Your task to perform on an android device: toggle wifi Image 0: 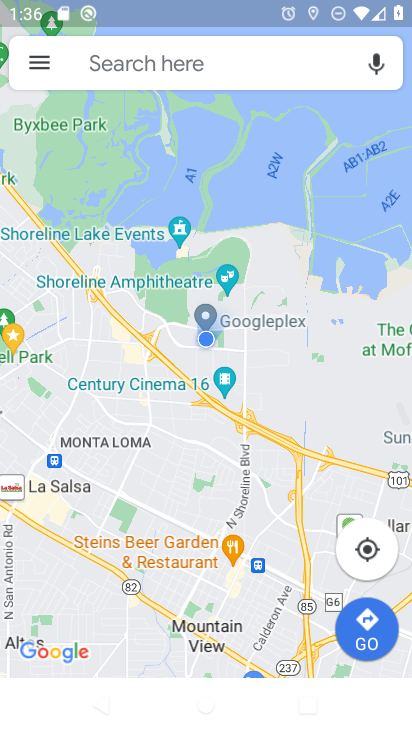
Step 0: press home button
Your task to perform on an android device: toggle wifi Image 1: 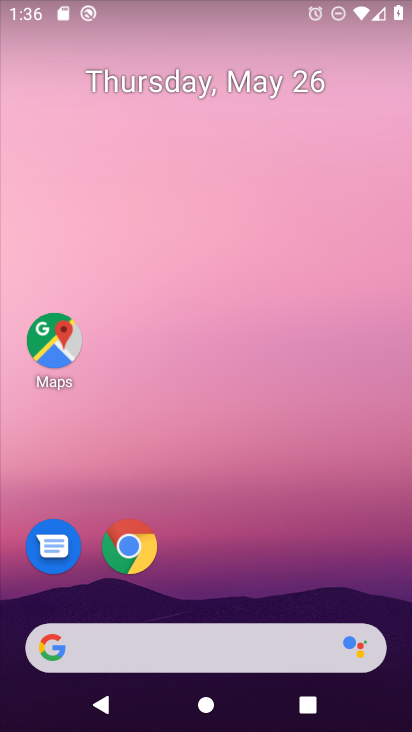
Step 1: drag from (211, 607) to (226, 366)
Your task to perform on an android device: toggle wifi Image 2: 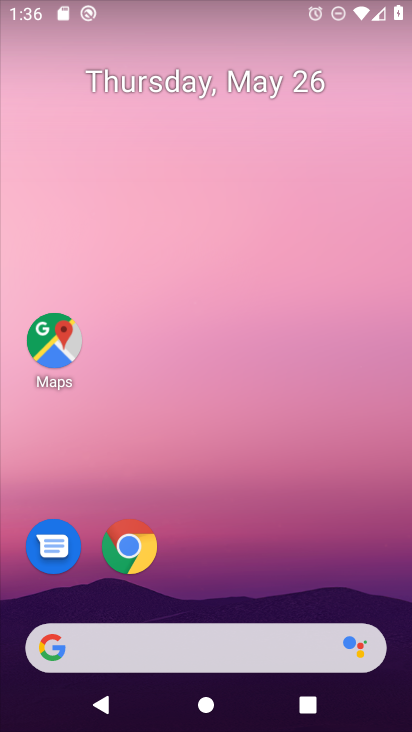
Step 2: drag from (236, 619) to (266, 226)
Your task to perform on an android device: toggle wifi Image 3: 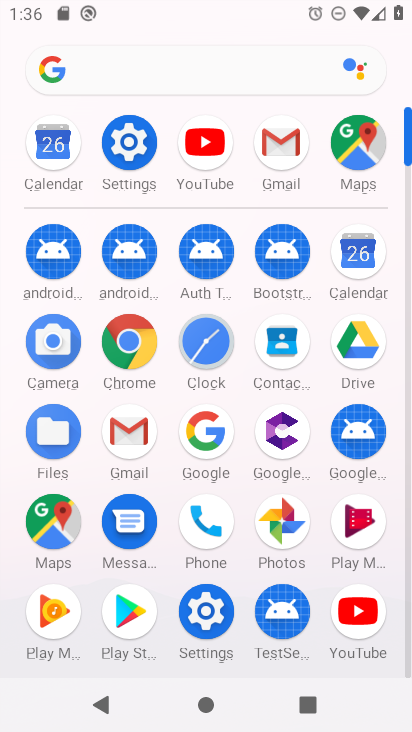
Step 3: click (132, 137)
Your task to perform on an android device: toggle wifi Image 4: 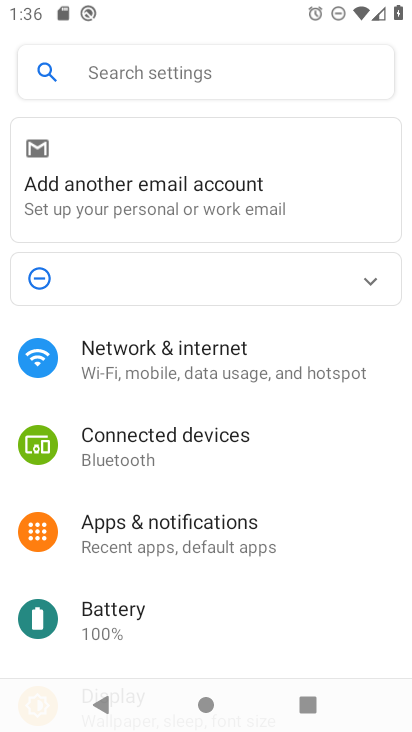
Step 4: click (189, 379)
Your task to perform on an android device: toggle wifi Image 5: 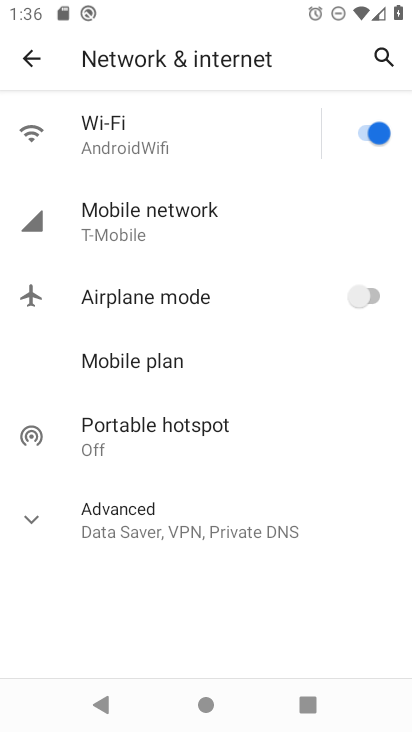
Step 5: click (366, 134)
Your task to perform on an android device: toggle wifi Image 6: 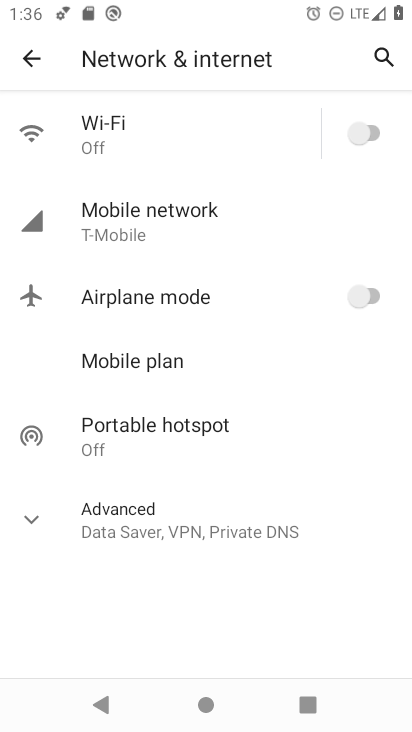
Step 6: task complete